Your task to perform on an android device: Open my contact list Image 0: 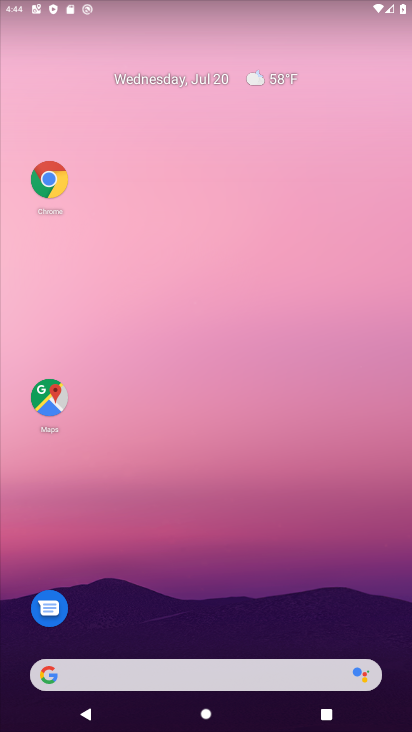
Step 0: drag from (238, 627) to (209, 98)
Your task to perform on an android device: Open my contact list Image 1: 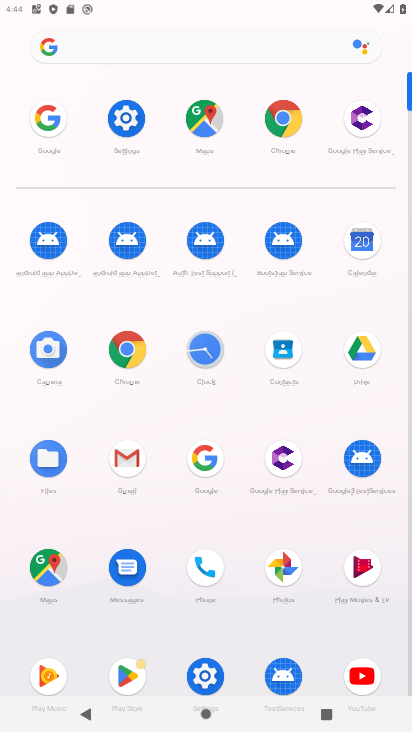
Step 1: click (222, 561)
Your task to perform on an android device: Open my contact list Image 2: 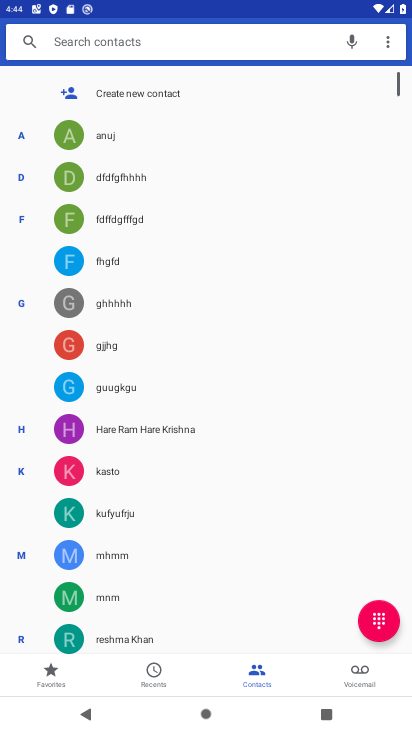
Step 2: click (134, 90)
Your task to perform on an android device: Open my contact list Image 3: 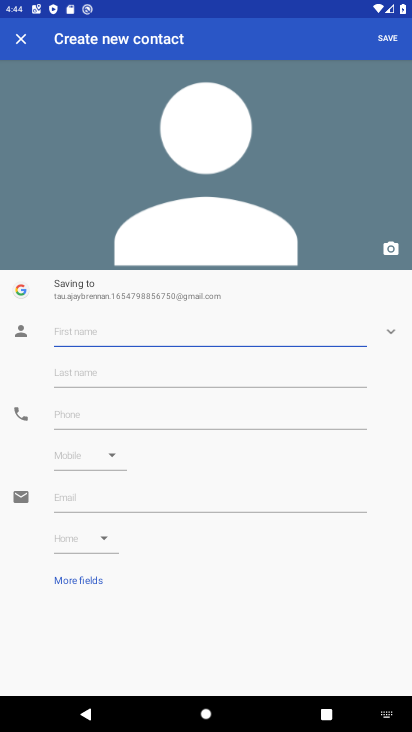
Step 3: press home button
Your task to perform on an android device: Open my contact list Image 4: 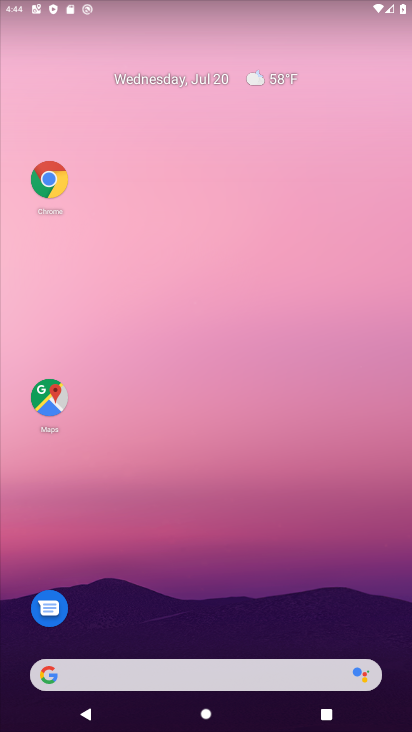
Step 4: drag from (217, 653) to (152, 88)
Your task to perform on an android device: Open my contact list Image 5: 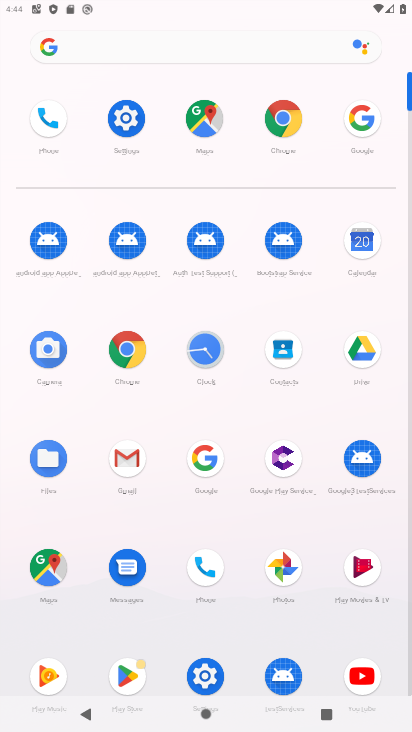
Step 5: click (207, 568)
Your task to perform on an android device: Open my contact list Image 6: 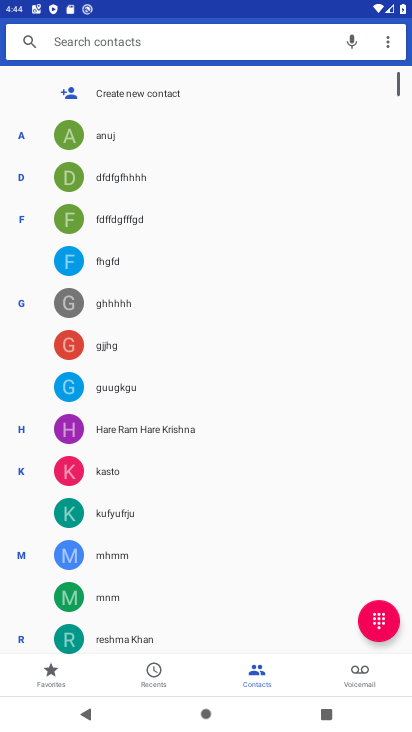
Step 6: task complete